Your task to perform on an android device: check storage Image 0: 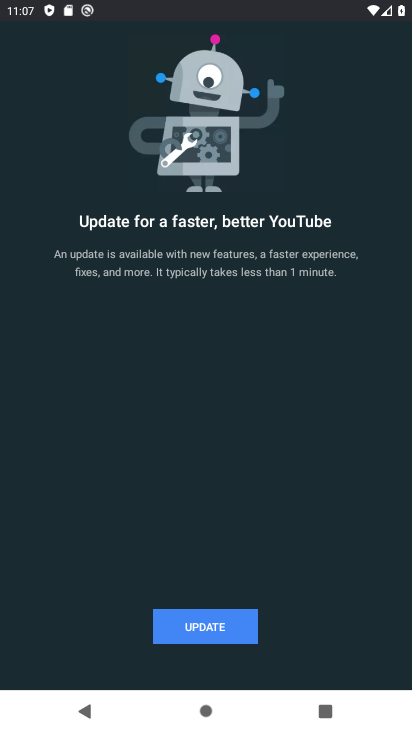
Step 0: press back button
Your task to perform on an android device: check storage Image 1: 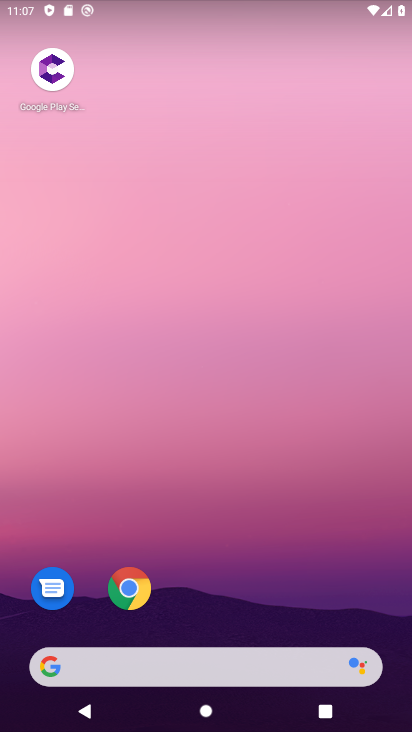
Step 1: drag from (297, 539) to (291, 15)
Your task to perform on an android device: check storage Image 2: 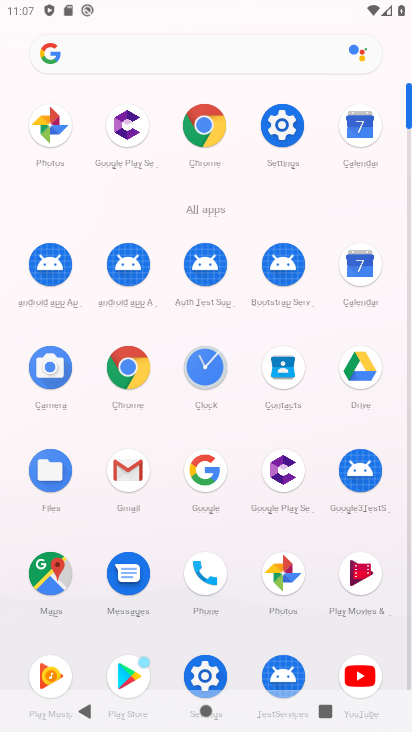
Step 2: click (280, 118)
Your task to perform on an android device: check storage Image 3: 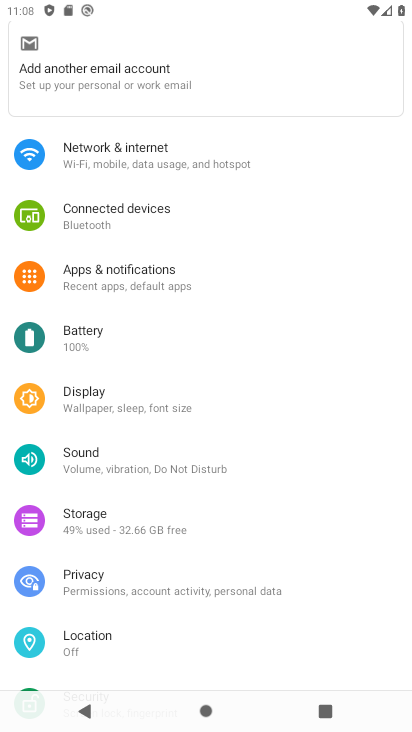
Step 3: click (136, 529)
Your task to perform on an android device: check storage Image 4: 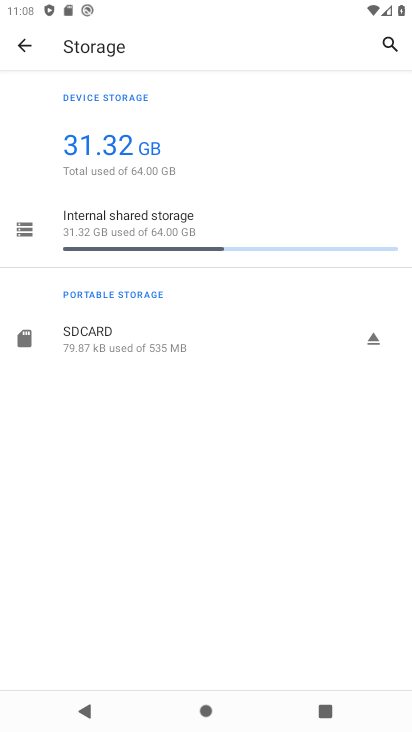
Step 4: task complete